Your task to perform on an android device: Open the web browser Image 0: 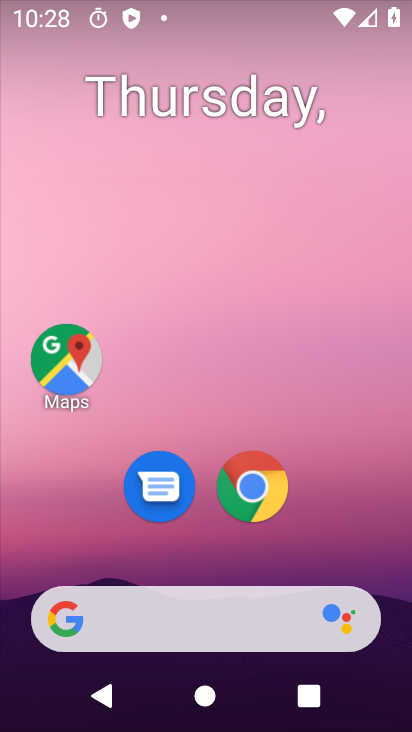
Step 0: drag from (384, 480) to (357, 215)
Your task to perform on an android device: Open the web browser Image 1: 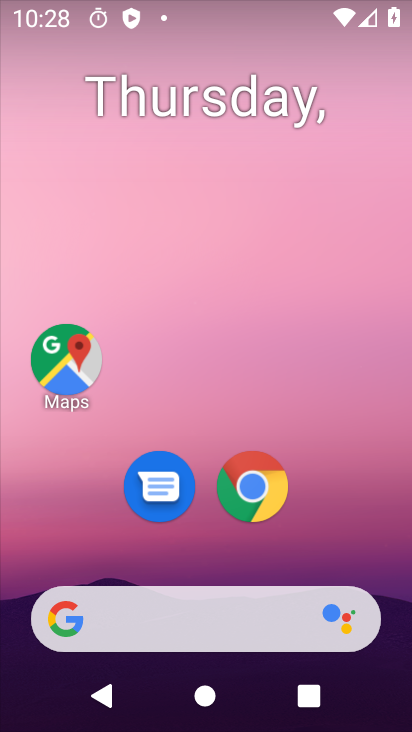
Step 1: click (251, 478)
Your task to perform on an android device: Open the web browser Image 2: 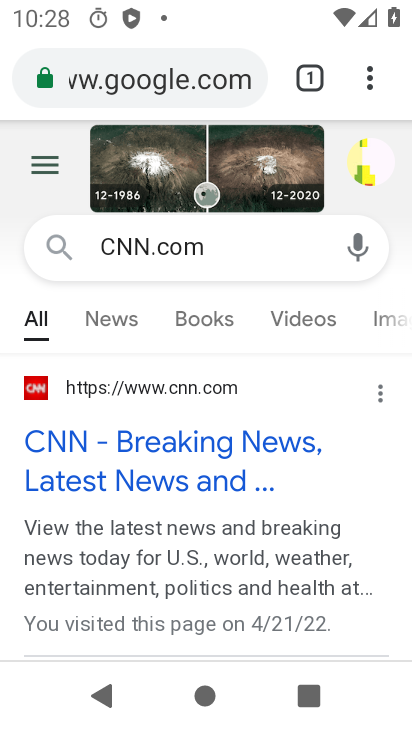
Step 2: task complete